Your task to perform on an android device: delete a single message in the gmail app Image 0: 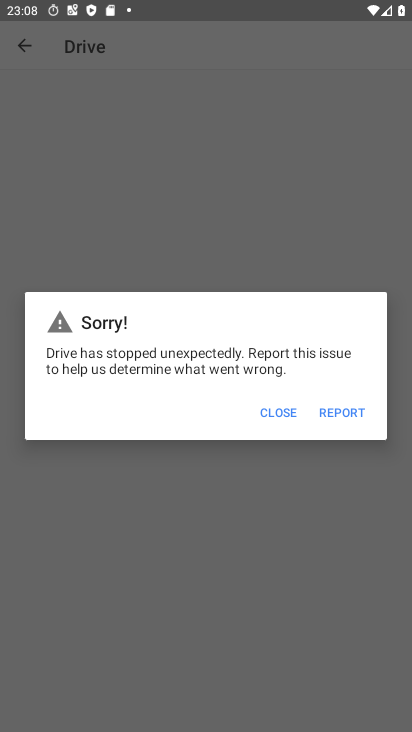
Step 0: press home button
Your task to perform on an android device: delete a single message in the gmail app Image 1: 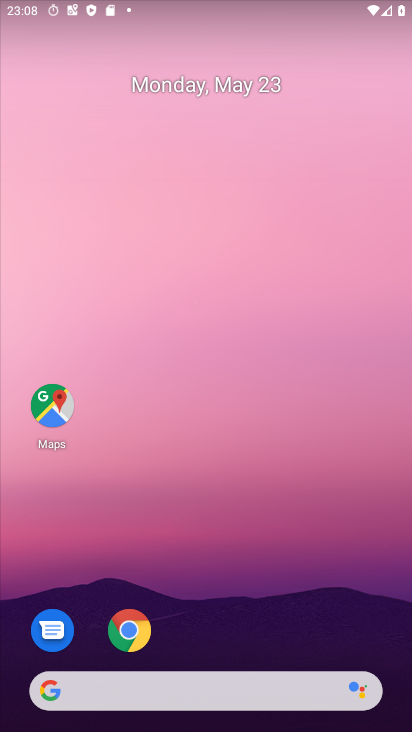
Step 1: drag from (287, 644) to (303, 8)
Your task to perform on an android device: delete a single message in the gmail app Image 2: 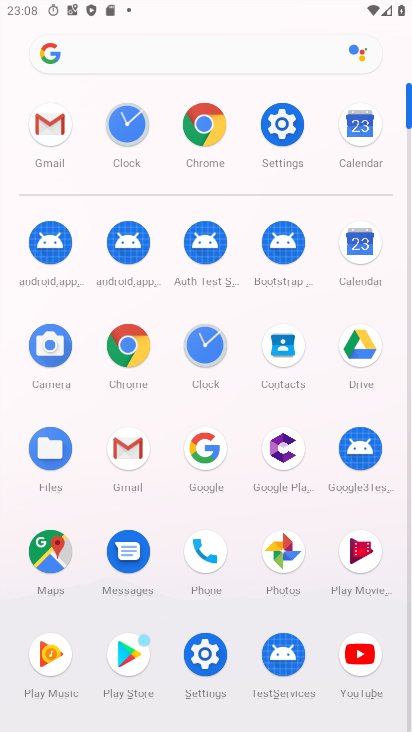
Step 2: click (51, 135)
Your task to perform on an android device: delete a single message in the gmail app Image 3: 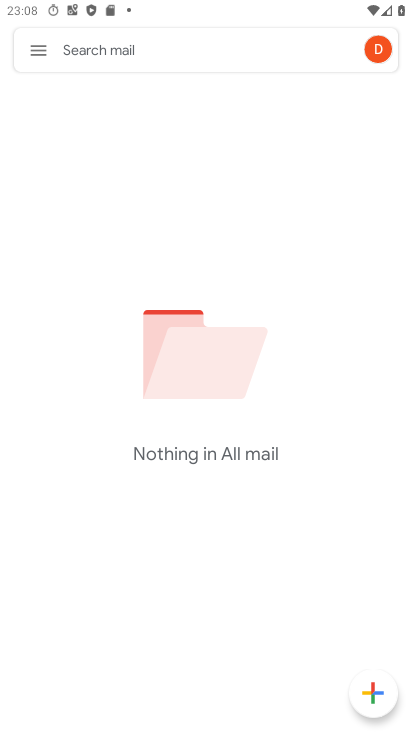
Step 3: task complete